Your task to perform on an android device: open app "NewsBreak: Local News & Alerts" Image 0: 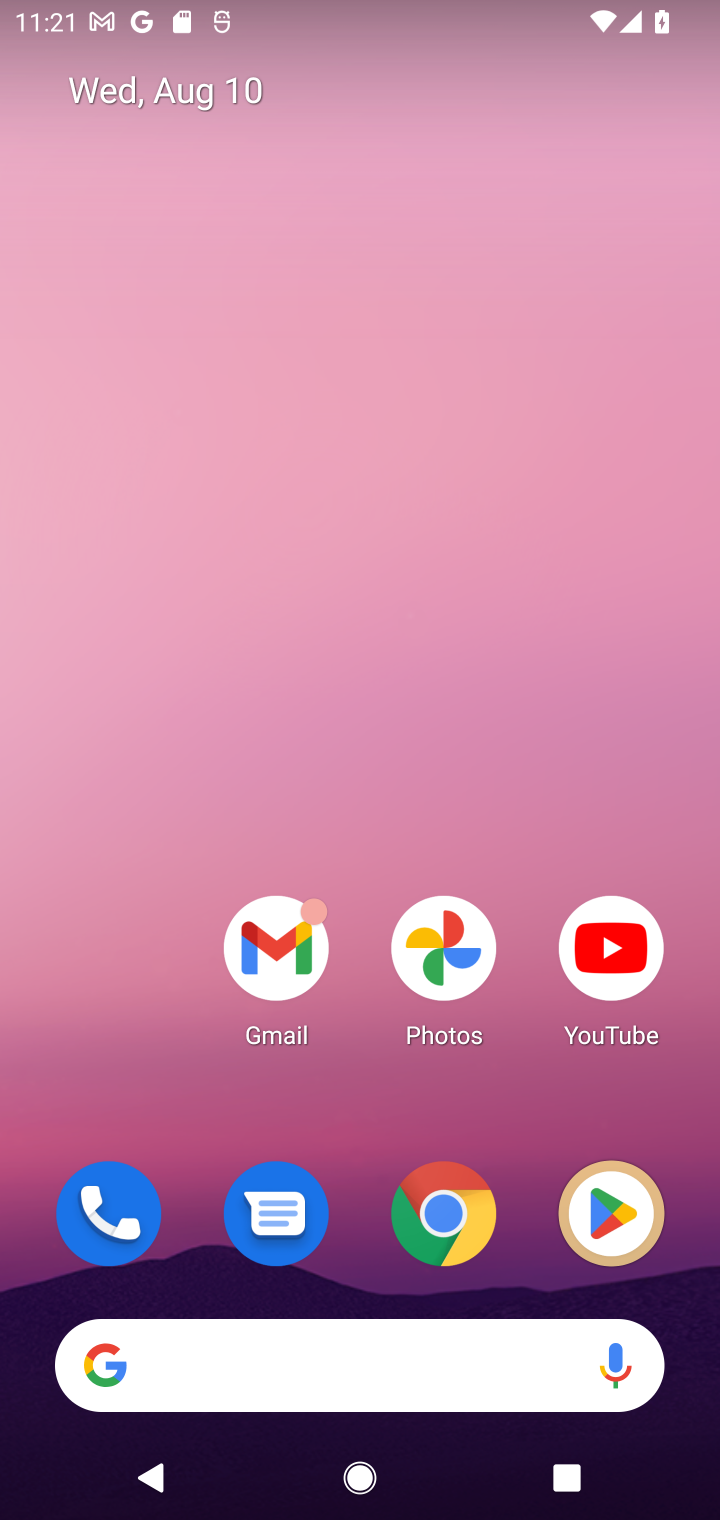
Step 0: drag from (372, 1356) to (392, 309)
Your task to perform on an android device: open app "NewsBreak: Local News & Alerts" Image 1: 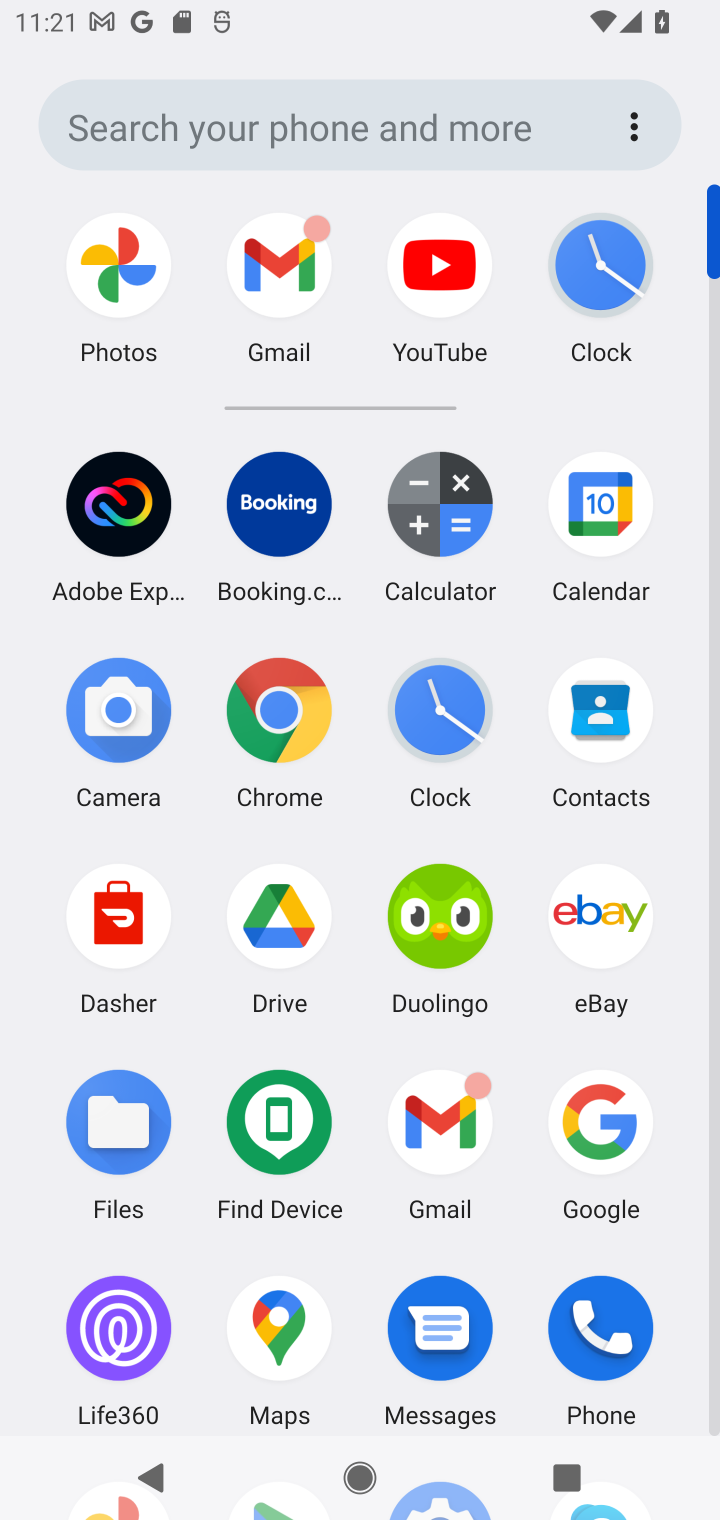
Step 1: drag from (346, 1269) to (293, 668)
Your task to perform on an android device: open app "NewsBreak: Local News & Alerts" Image 2: 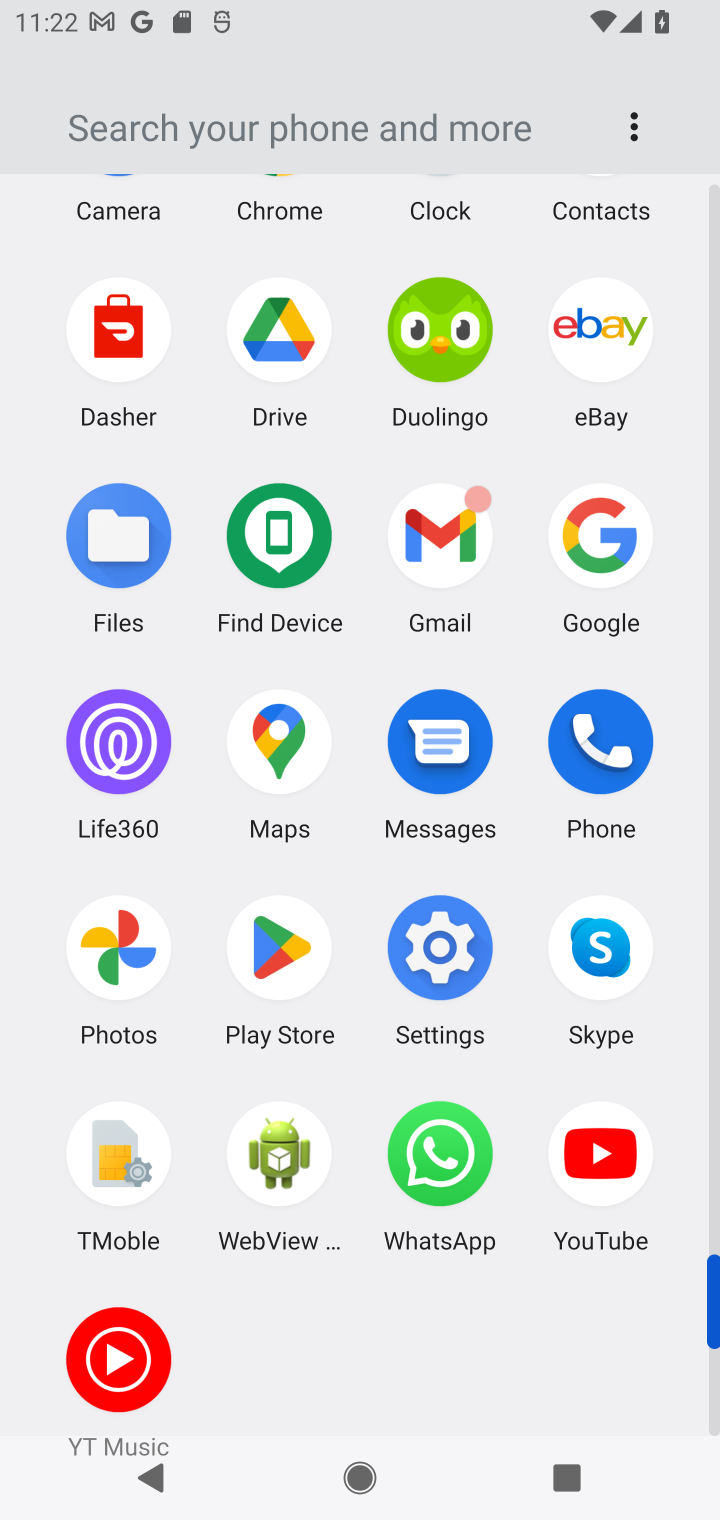
Step 2: click (280, 943)
Your task to perform on an android device: open app "NewsBreak: Local News & Alerts" Image 3: 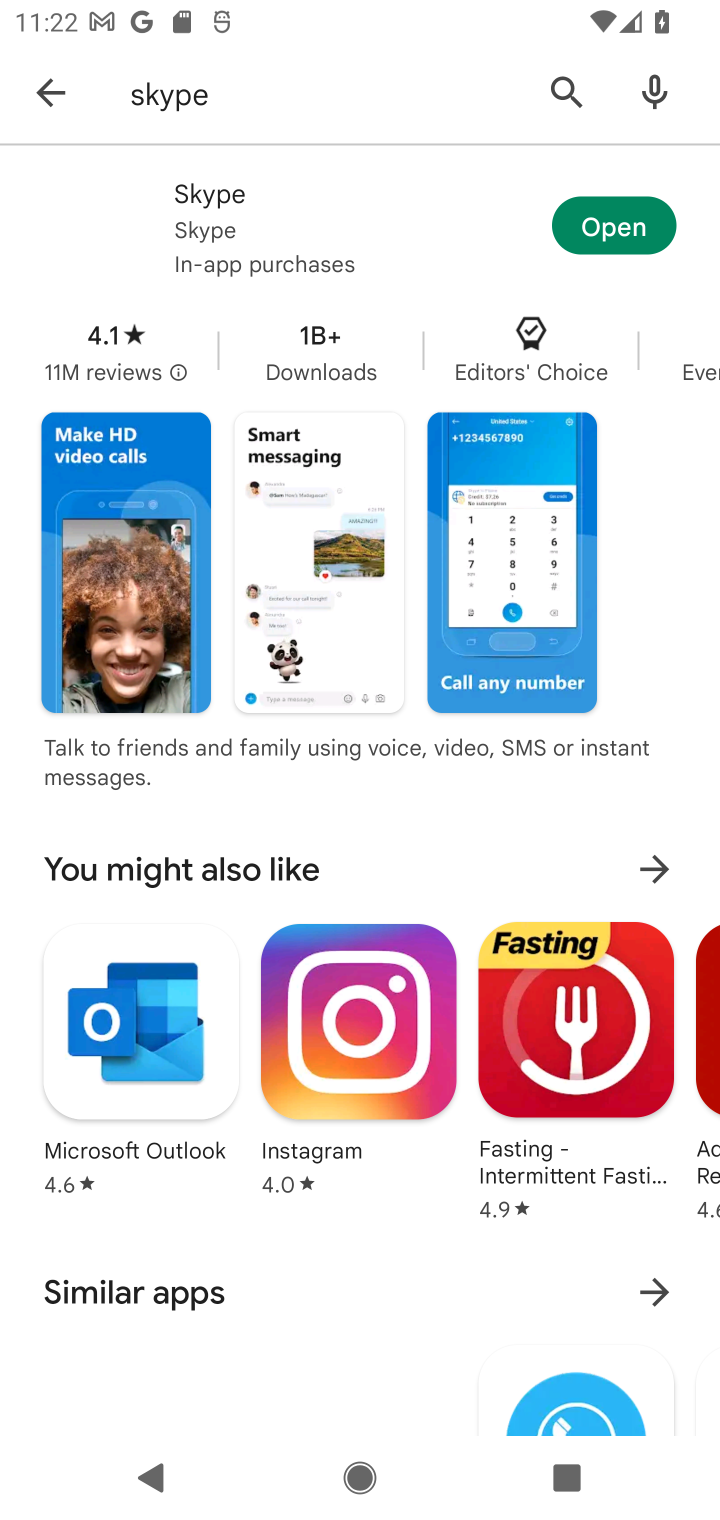
Step 3: press back button
Your task to perform on an android device: open app "NewsBreak: Local News & Alerts" Image 4: 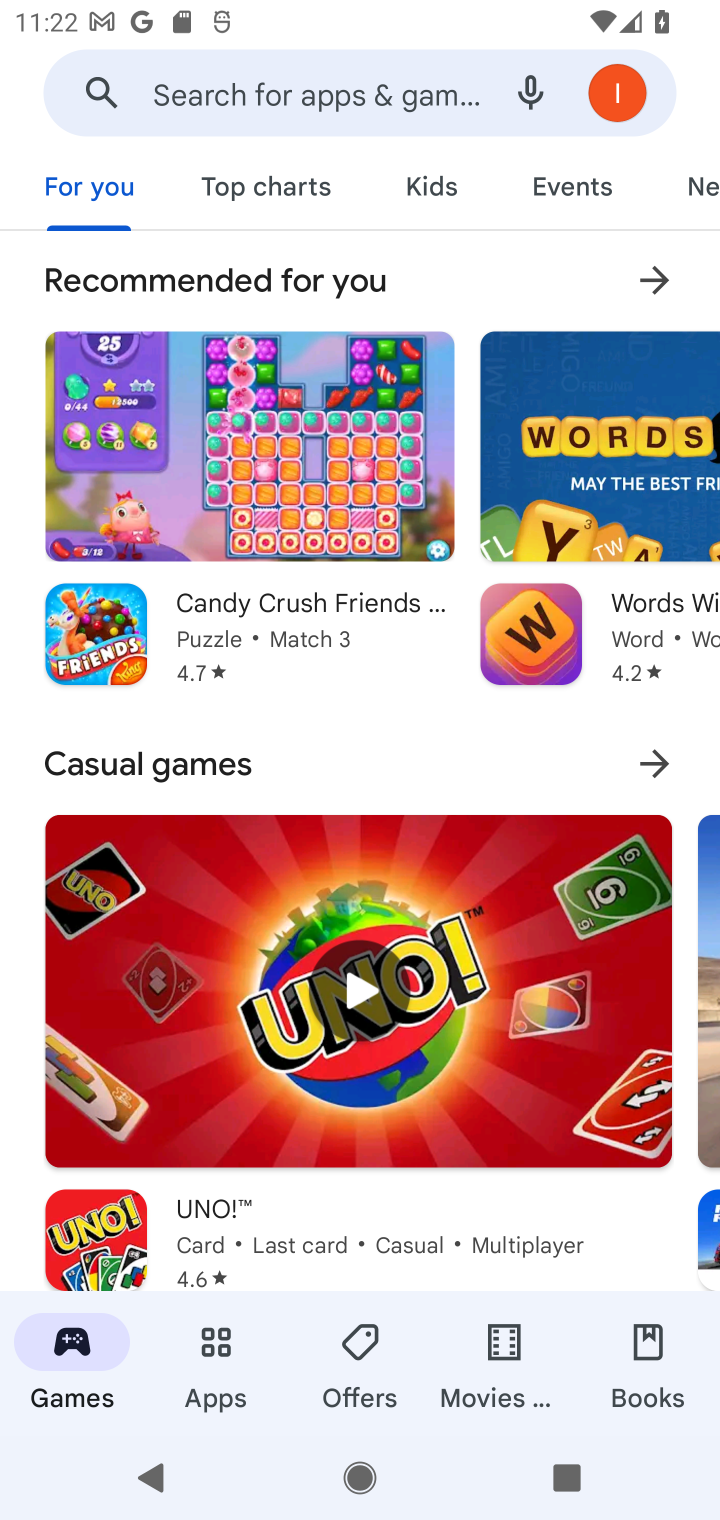
Step 4: click (388, 100)
Your task to perform on an android device: open app "NewsBreak: Local News & Alerts" Image 5: 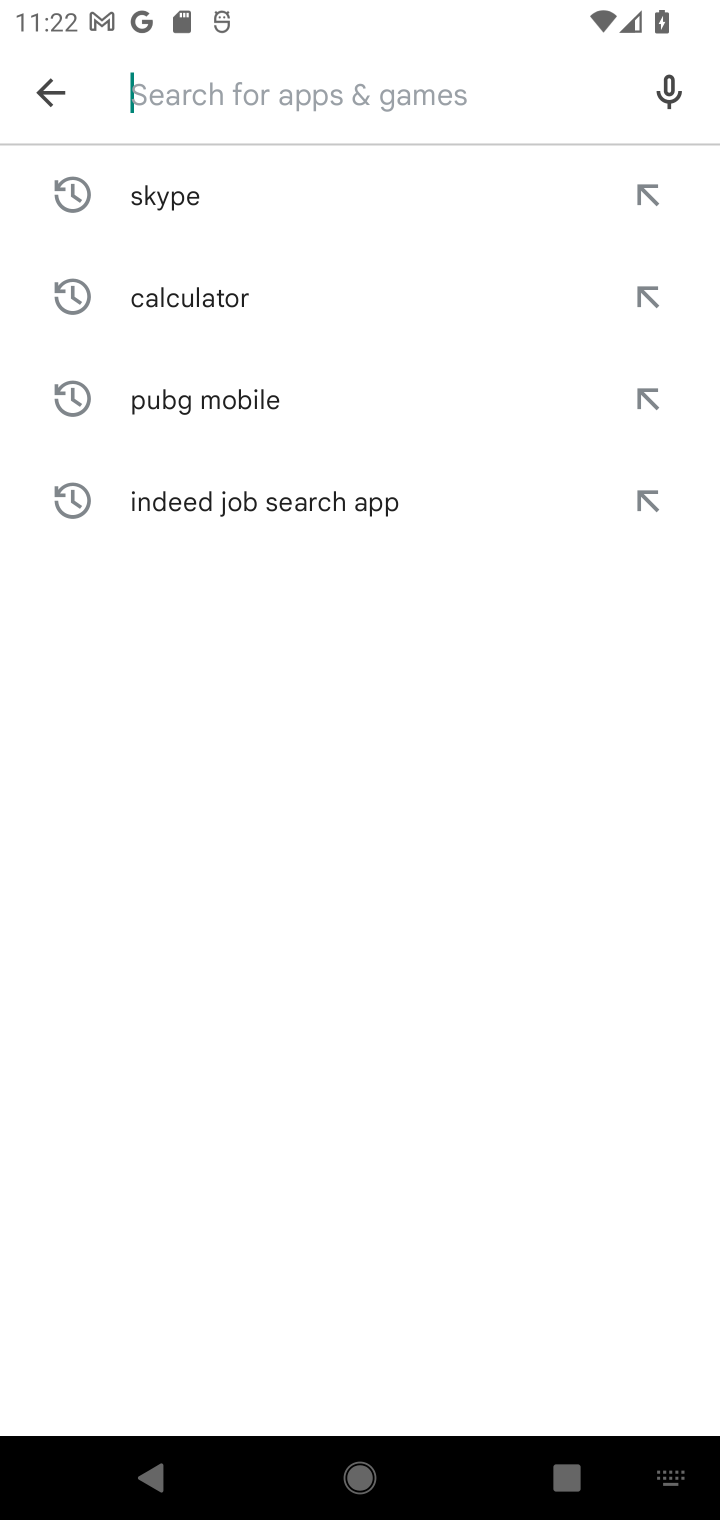
Step 5: click (295, 81)
Your task to perform on an android device: open app "NewsBreak: Local News & Alerts" Image 6: 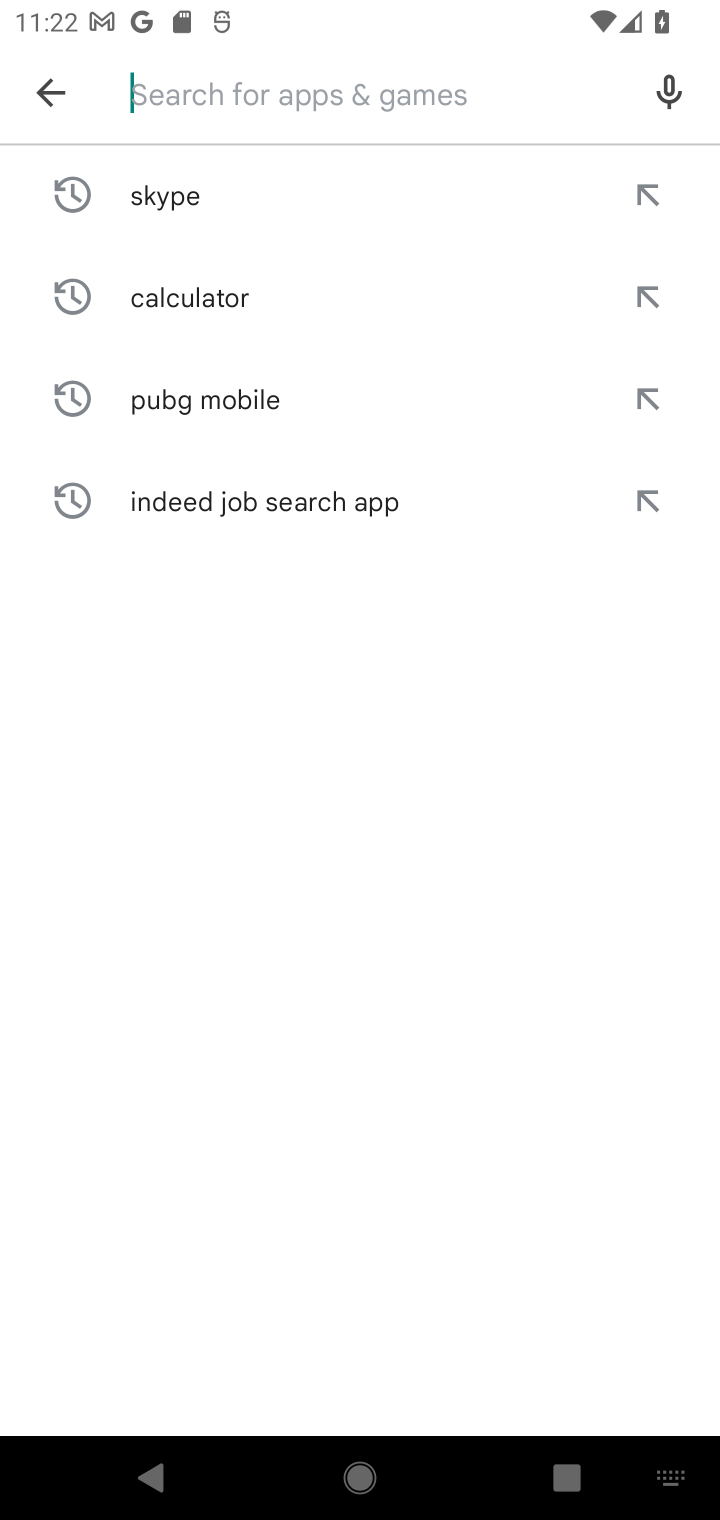
Step 6: type "NewsBreak: Local News & Alerts"
Your task to perform on an android device: open app "NewsBreak: Local News & Alerts" Image 7: 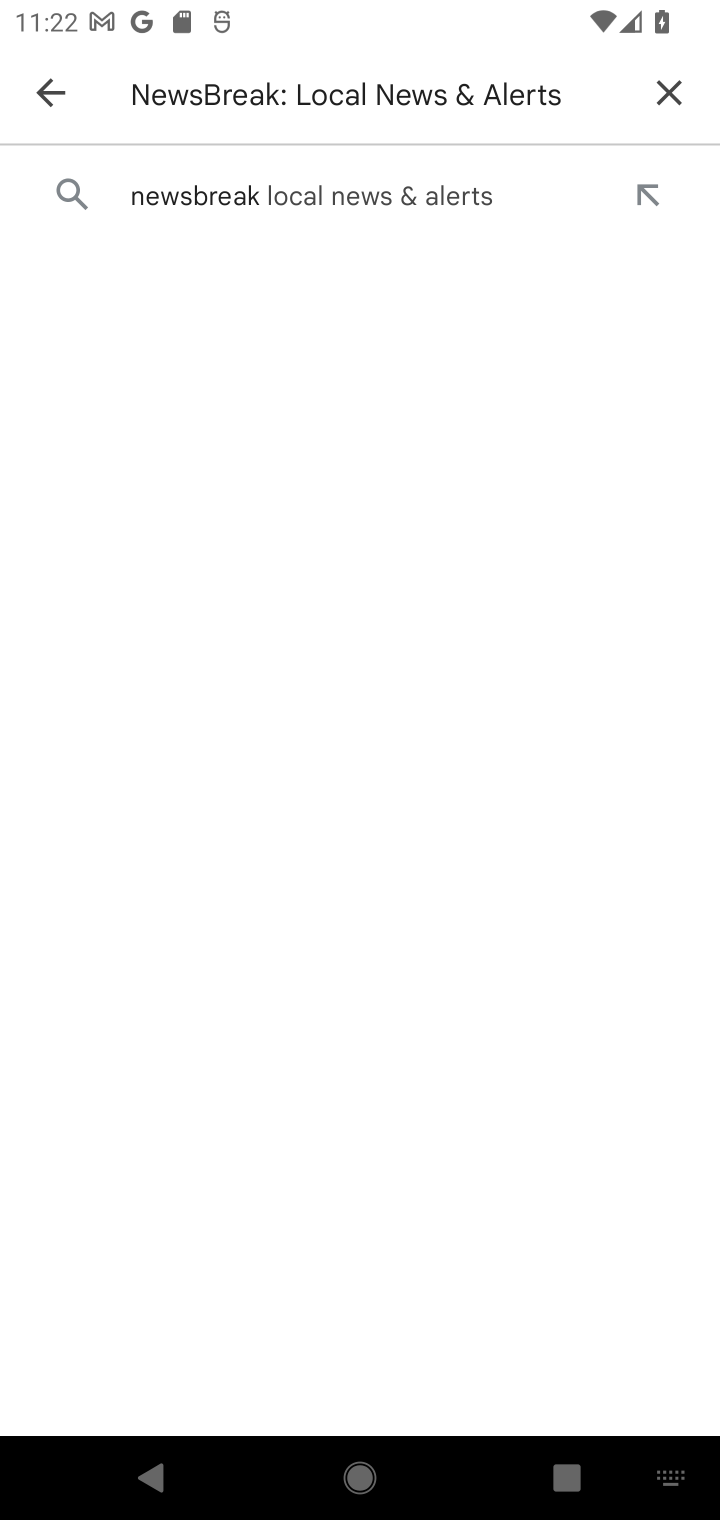
Step 7: click (309, 197)
Your task to perform on an android device: open app "NewsBreak: Local News & Alerts" Image 8: 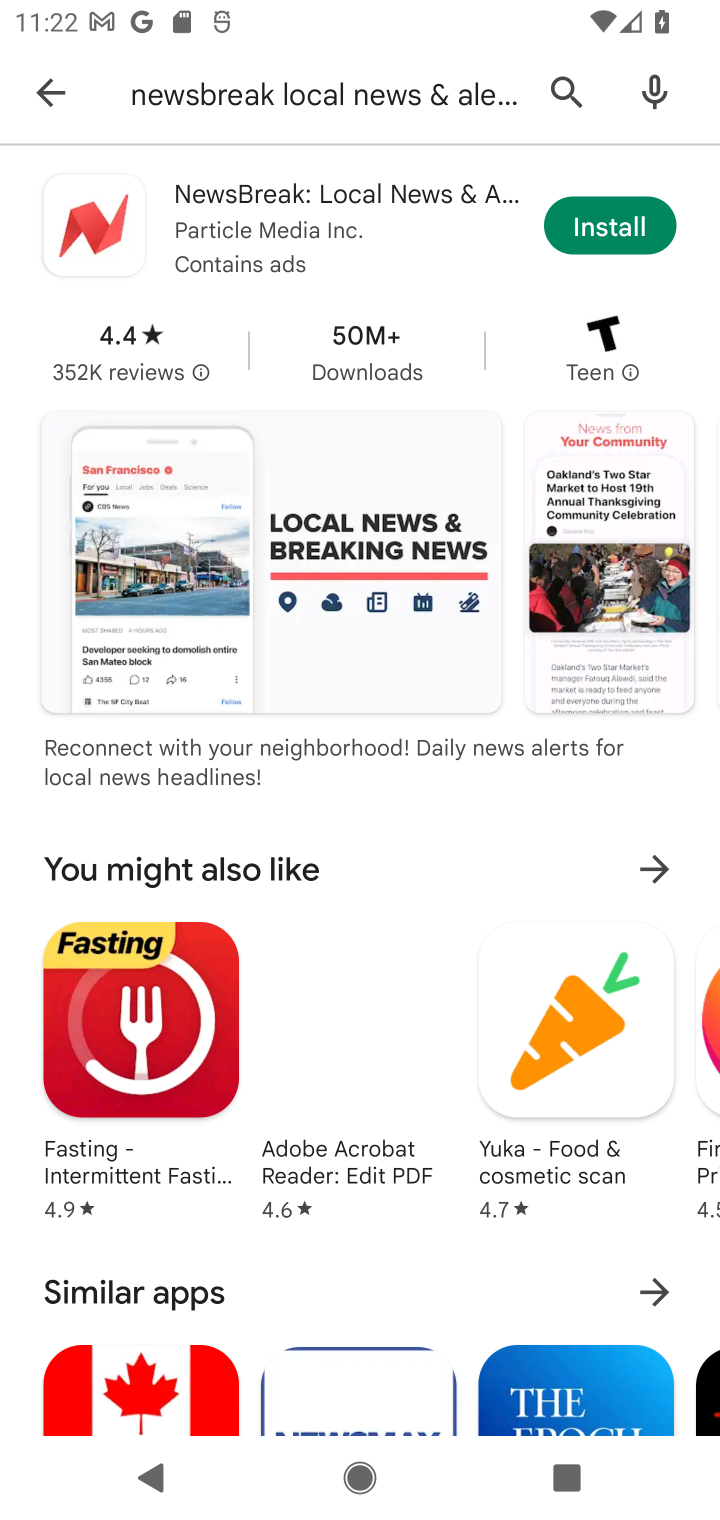
Step 8: task complete